Your task to perform on an android device: What's the weather? Image 0: 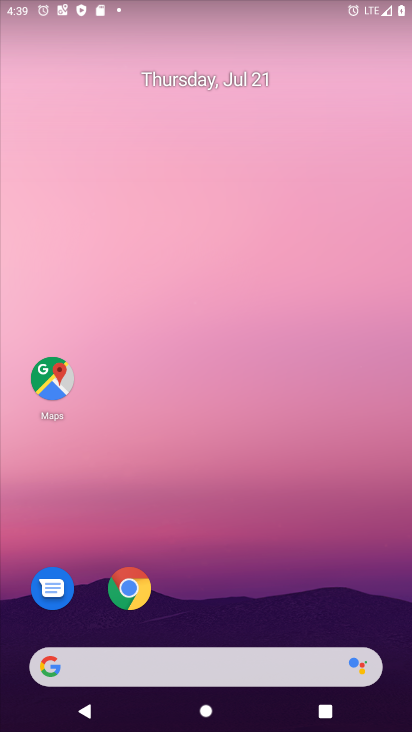
Step 0: click (133, 588)
Your task to perform on an android device: What's the weather? Image 1: 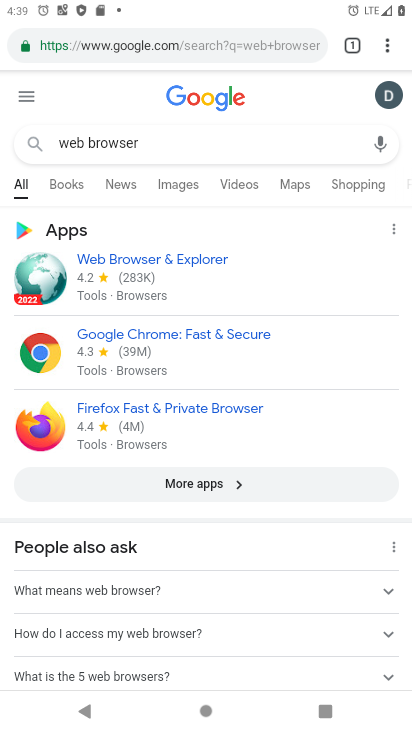
Step 1: click (281, 47)
Your task to perform on an android device: What's the weather? Image 2: 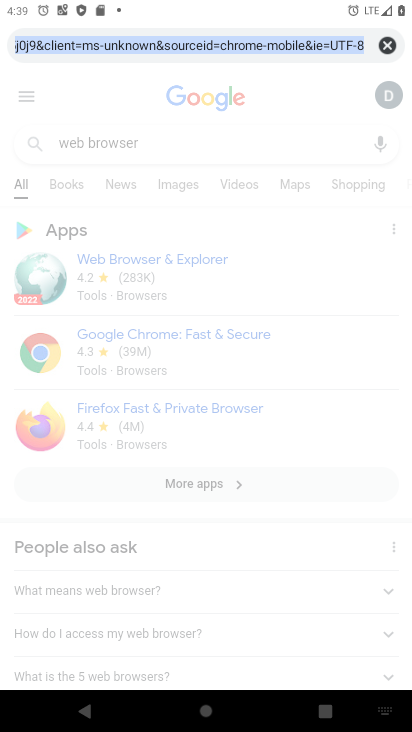
Step 2: type "What's the weather?"
Your task to perform on an android device: What's the weather? Image 3: 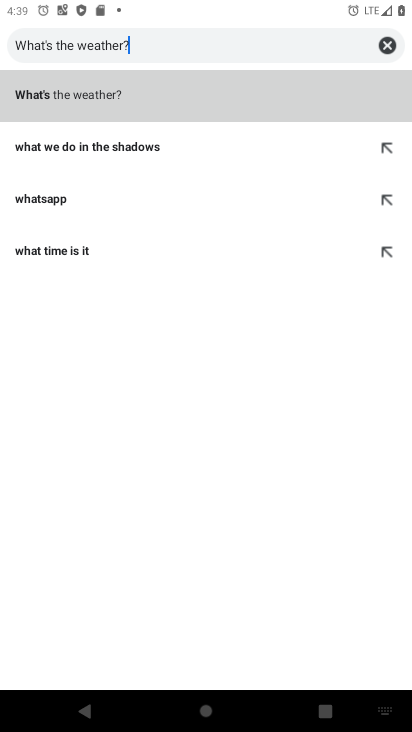
Step 3: type ""
Your task to perform on an android device: What's the weather? Image 4: 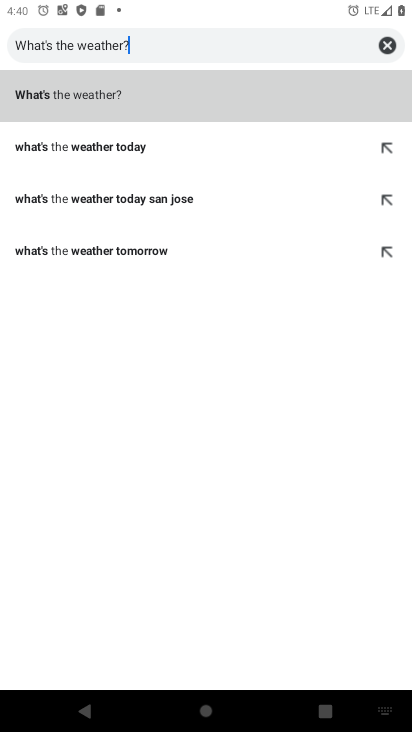
Step 4: click (82, 102)
Your task to perform on an android device: What's the weather? Image 5: 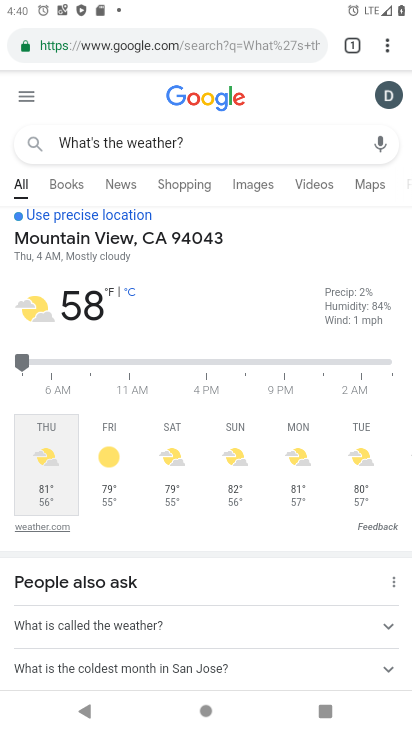
Step 5: task complete